Your task to perform on an android device: Search for pizza restaurants on Maps Image 0: 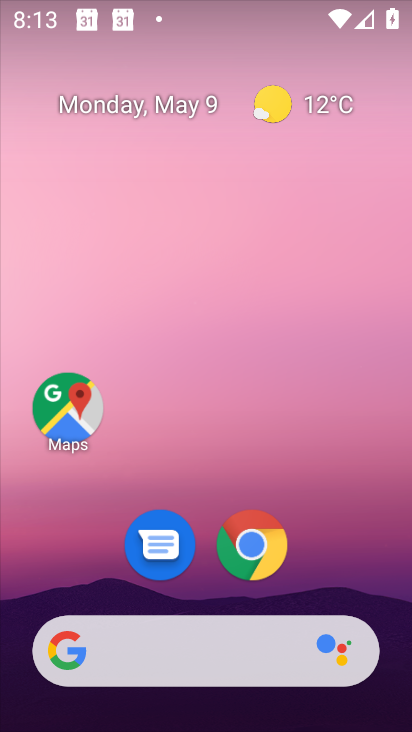
Step 0: drag from (213, 728) to (219, 297)
Your task to perform on an android device: Search for pizza restaurants on Maps Image 1: 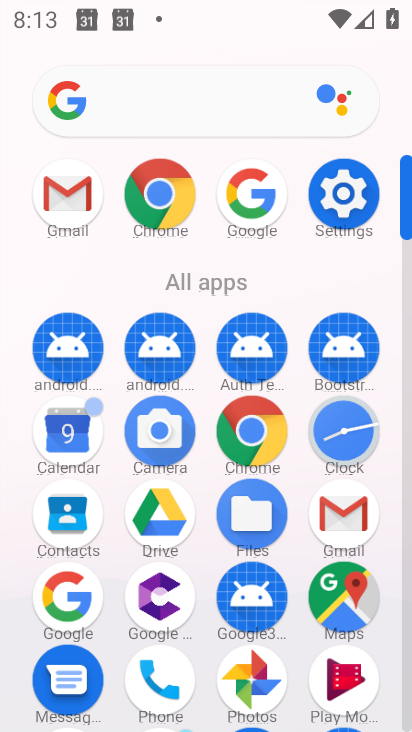
Step 1: click (351, 590)
Your task to perform on an android device: Search for pizza restaurants on Maps Image 2: 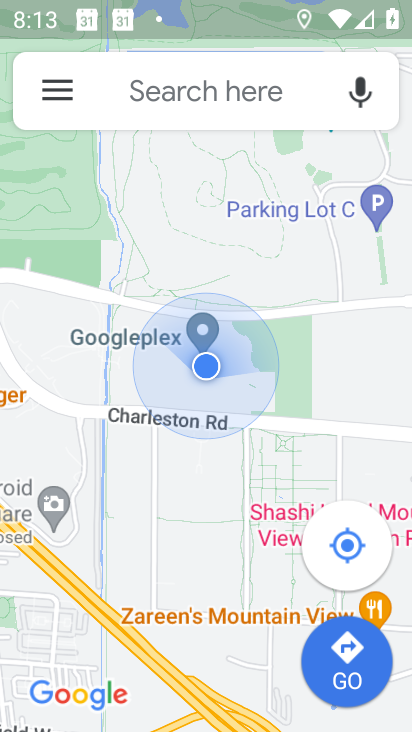
Step 2: click (177, 92)
Your task to perform on an android device: Search for pizza restaurants on Maps Image 3: 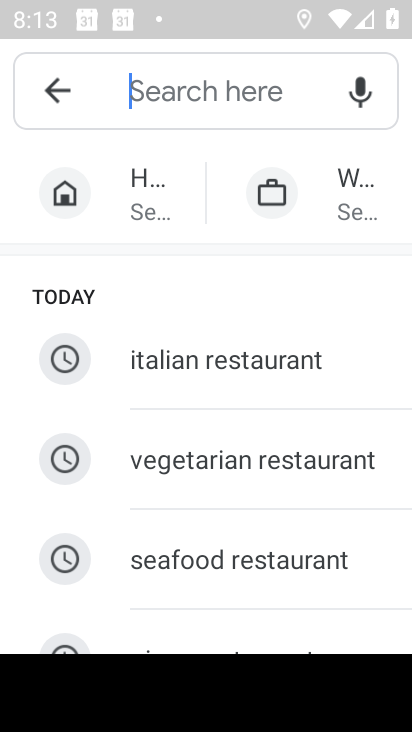
Step 3: type "pizza restaurants"
Your task to perform on an android device: Search for pizza restaurants on Maps Image 4: 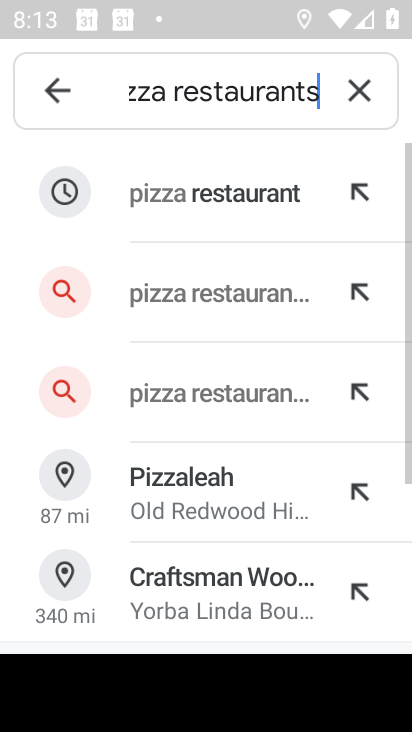
Step 4: click (185, 190)
Your task to perform on an android device: Search for pizza restaurants on Maps Image 5: 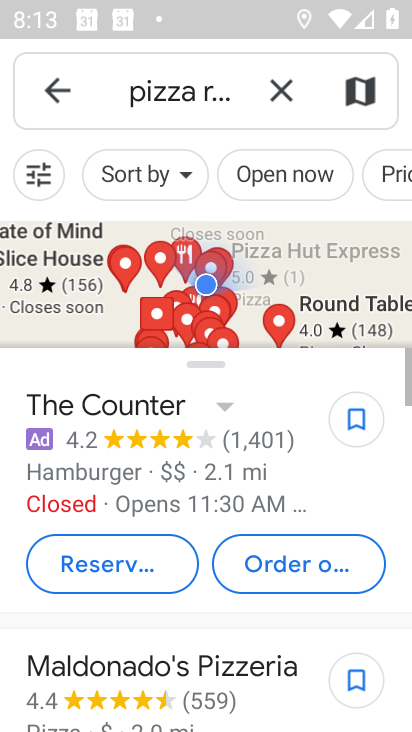
Step 5: task complete